Your task to perform on an android device: See recent photos Image 0: 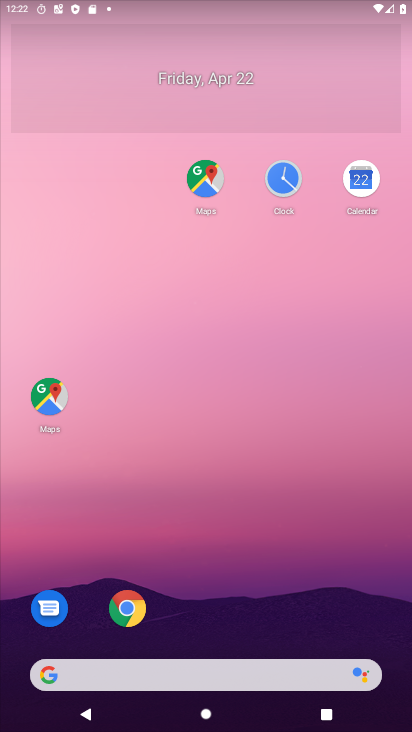
Step 0: drag from (286, 668) to (139, 111)
Your task to perform on an android device: See recent photos Image 1: 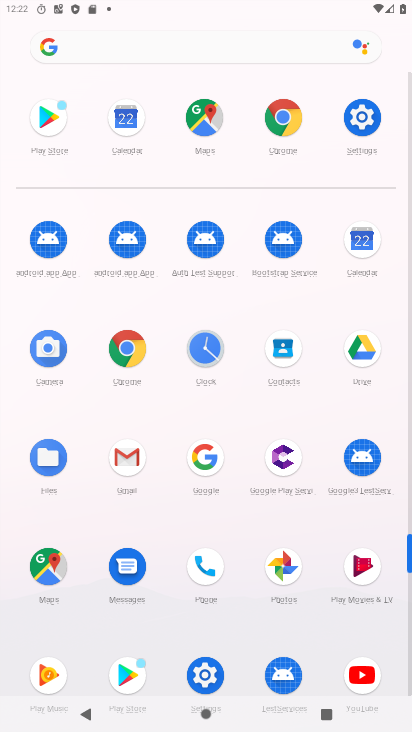
Step 1: click (280, 566)
Your task to perform on an android device: See recent photos Image 2: 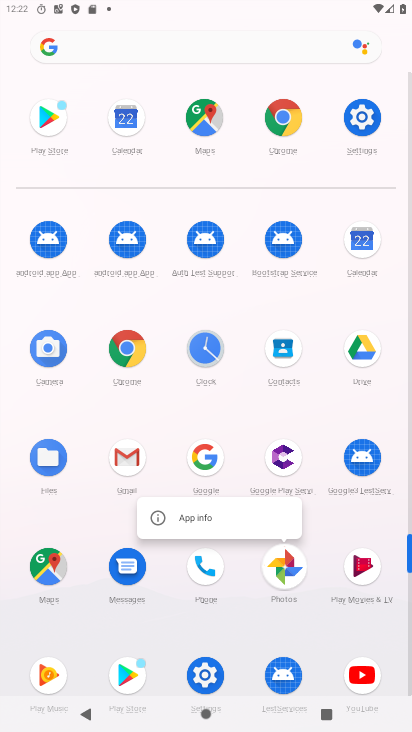
Step 2: click (281, 567)
Your task to perform on an android device: See recent photos Image 3: 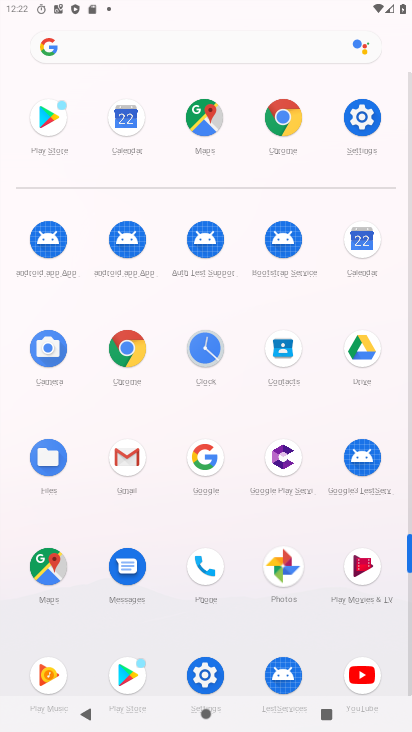
Step 3: click (281, 567)
Your task to perform on an android device: See recent photos Image 4: 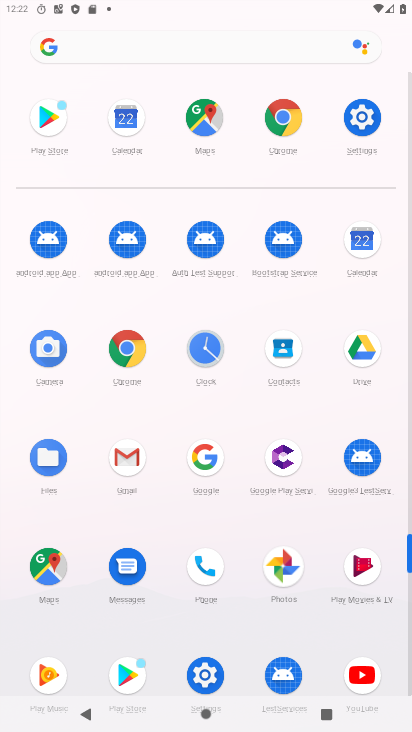
Step 4: click (281, 567)
Your task to perform on an android device: See recent photos Image 5: 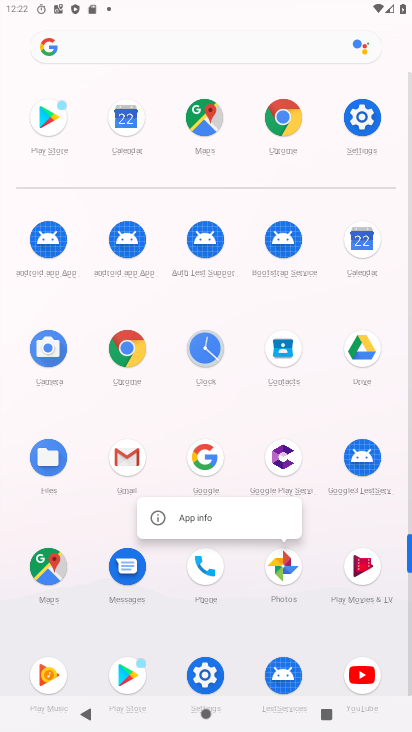
Step 5: click (281, 567)
Your task to perform on an android device: See recent photos Image 6: 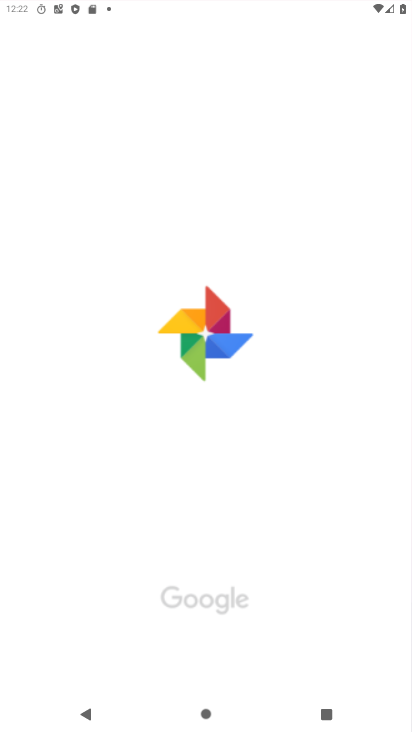
Step 6: click (281, 567)
Your task to perform on an android device: See recent photos Image 7: 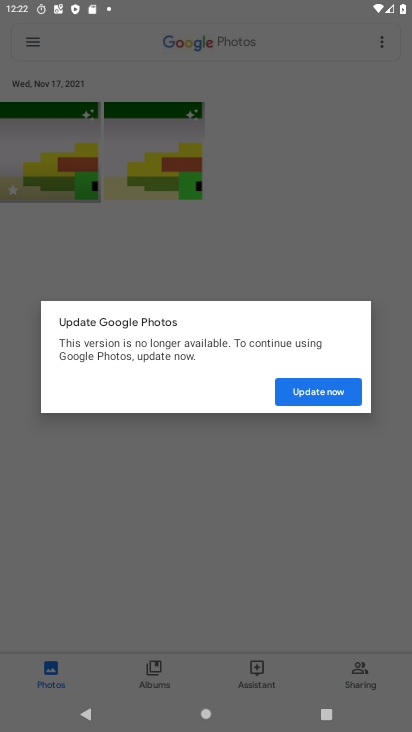
Step 7: click (327, 392)
Your task to perform on an android device: See recent photos Image 8: 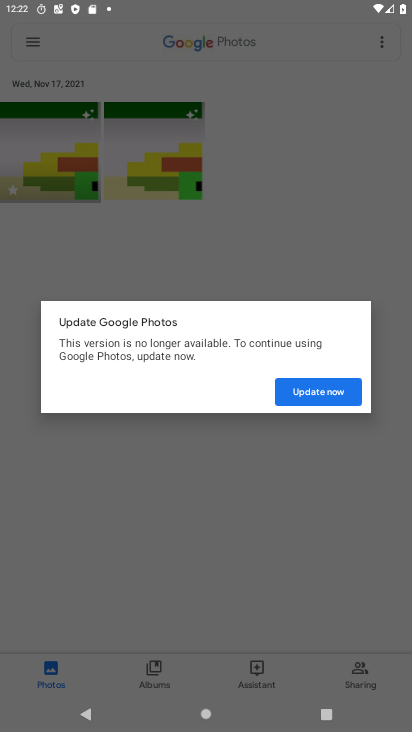
Step 8: click (327, 392)
Your task to perform on an android device: See recent photos Image 9: 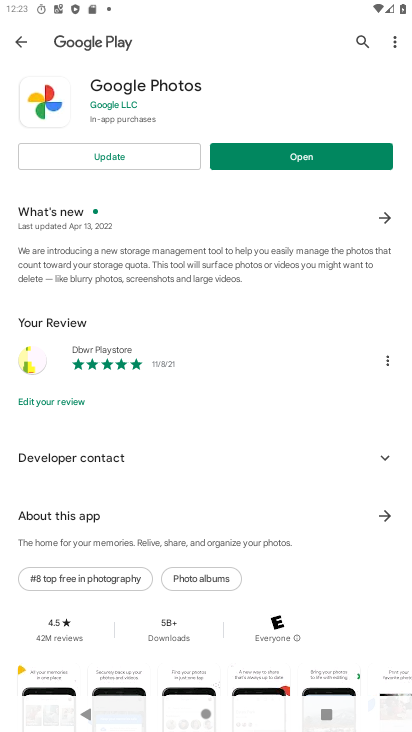
Step 9: click (125, 154)
Your task to perform on an android device: See recent photos Image 10: 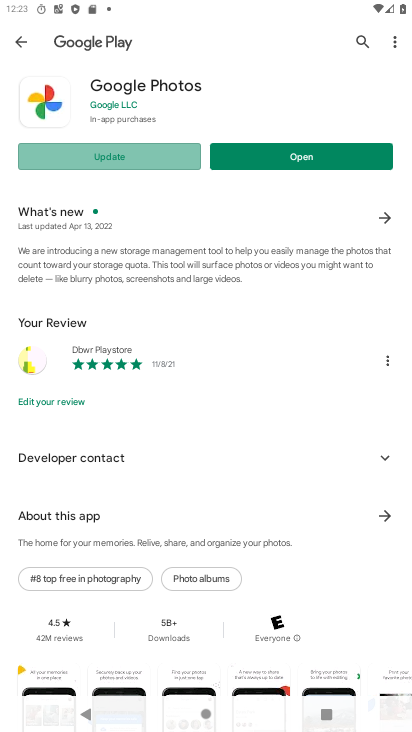
Step 10: click (137, 161)
Your task to perform on an android device: See recent photos Image 11: 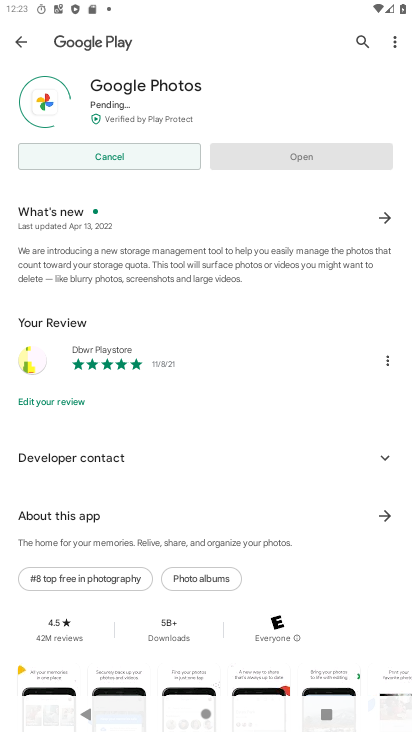
Step 11: click (139, 162)
Your task to perform on an android device: See recent photos Image 12: 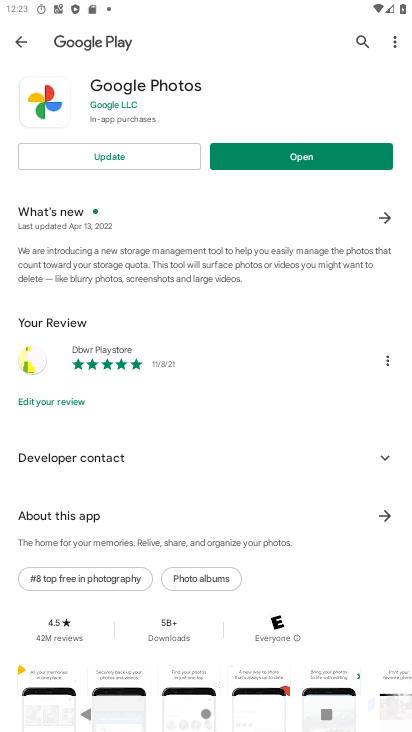
Step 12: click (114, 138)
Your task to perform on an android device: See recent photos Image 13: 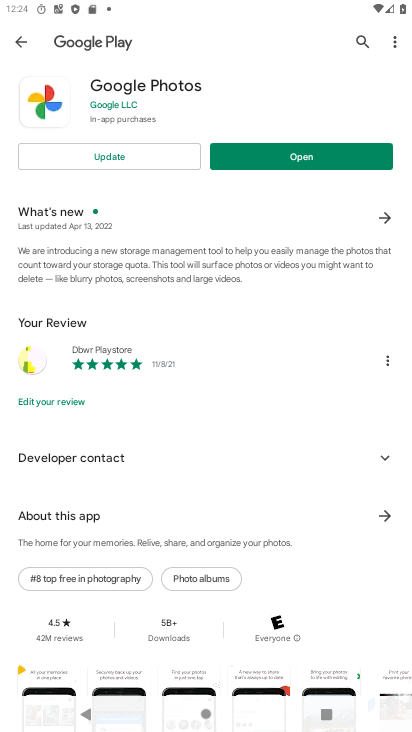
Step 13: click (129, 155)
Your task to perform on an android device: See recent photos Image 14: 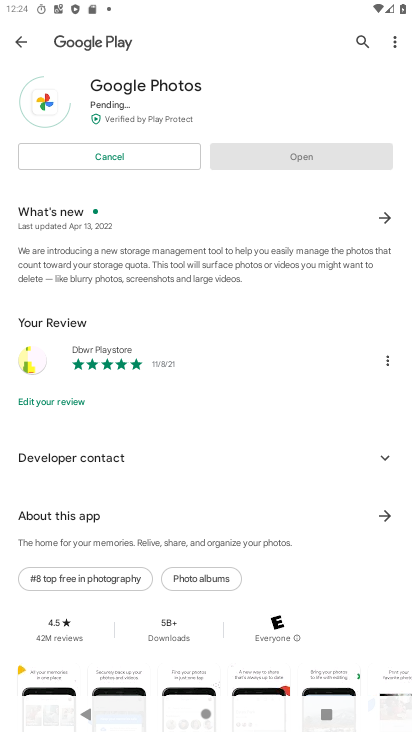
Step 14: click (150, 147)
Your task to perform on an android device: See recent photos Image 15: 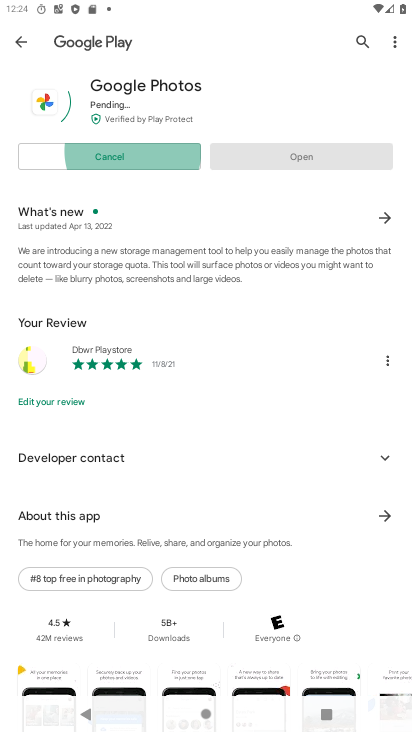
Step 15: click (154, 171)
Your task to perform on an android device: See recent photos Image 16: 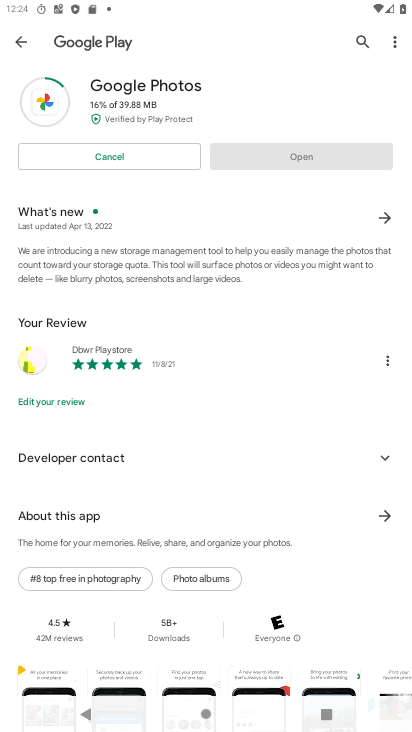
Step 16: click (149, 156)
Your task to perform on an android device: See recent photos Image 17: 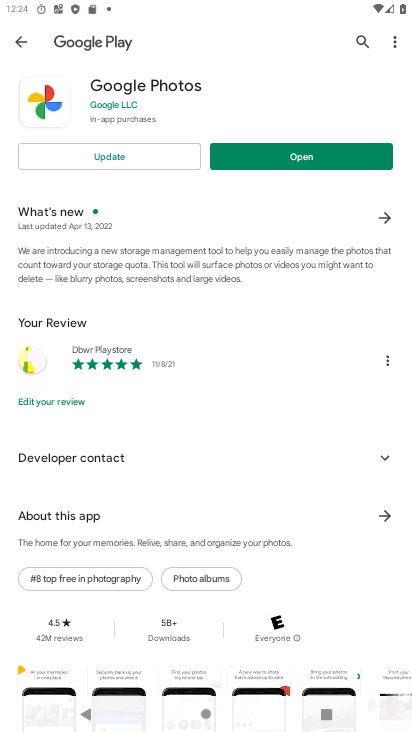
Step 17: click (318, 162)
Your task to perform on an android device: See recent photos Image 18: 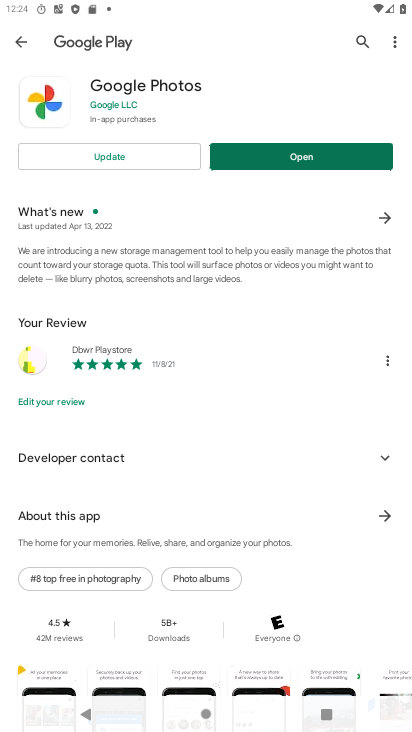
Step 18: click (318, 162)
Your task to perform on an android device: See recent photos Image 19: 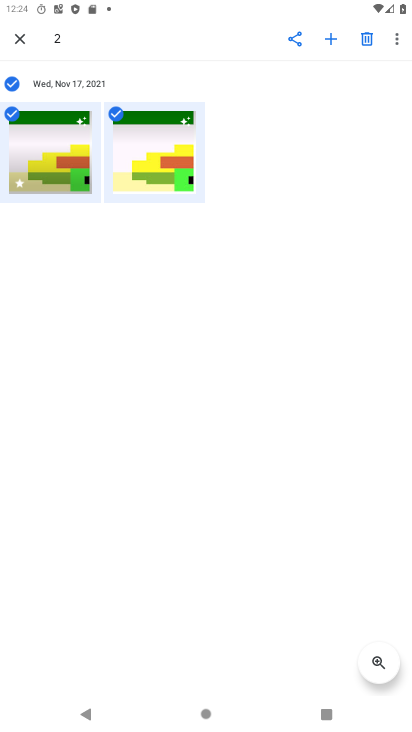
Step 19: task complete